Your task to perform on an android device: turn off notifications settings in the gmail app Image 0: 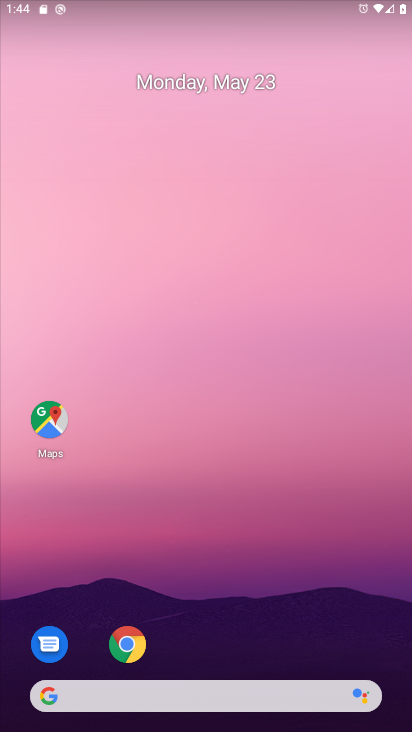
Step 0: click (360, 550)
Your task to perform on an android device: turn off notifications settings in the gmail app Image 1: 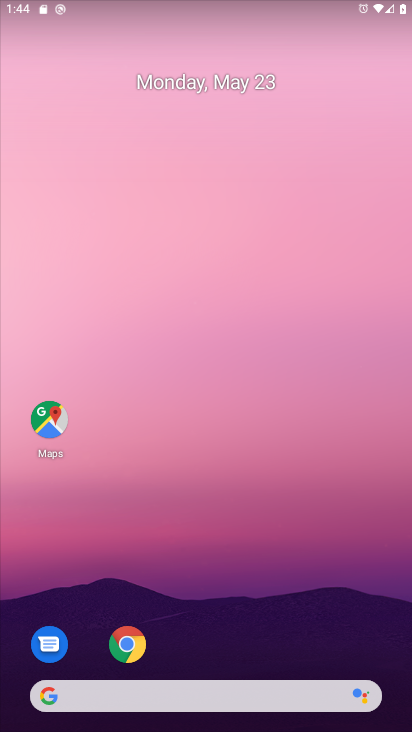
Step 1: drag from (226, 632) to (171, 236)
Your task to perform on an android device: turn off notifications settings in the gmail app Image 2: 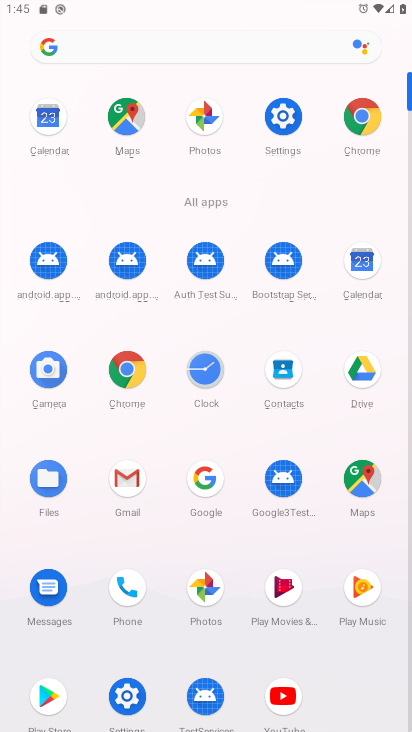
Step 2: click (131, 479)
Your task to perform on an android device: turn off notifications settings in the gmail app Image 3: 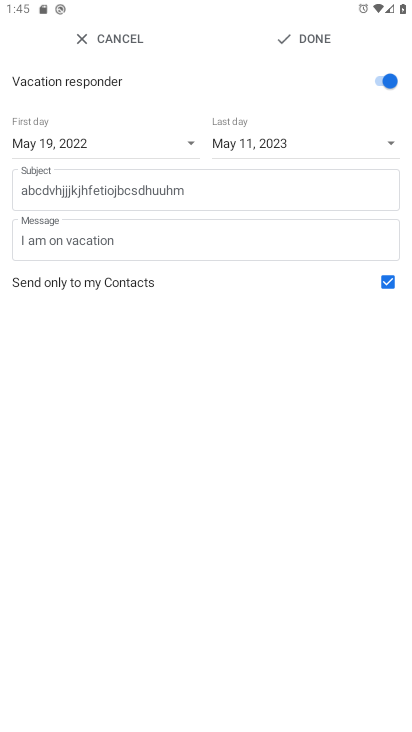
Step 3: press back button
Your task to perform on an android device: turn off notifications settings in the gmail app Image 4: 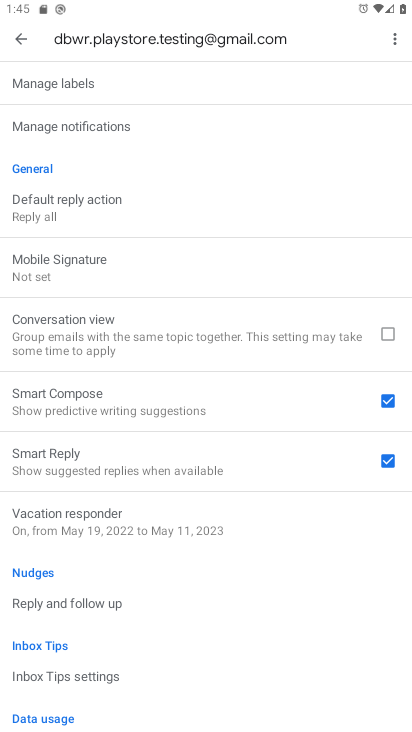
Step 4: drag from (240, 227) to (236, 523)
Your task to perform on an android device: turn off notifications settings in the gmail app Image 5: 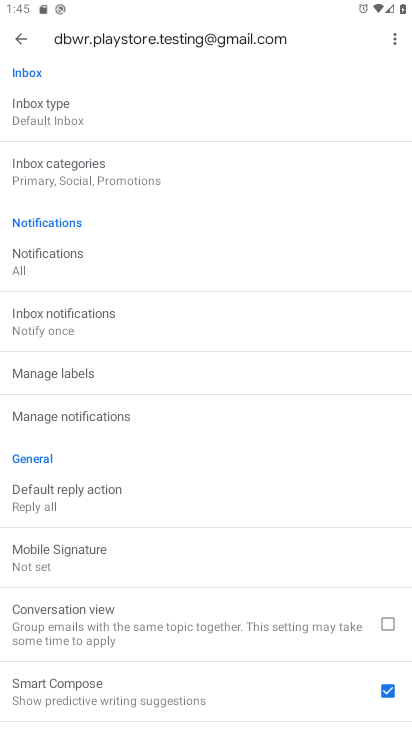
Step 5: click (70, 256)
Your task to perform on an android device: turn off notifications settings in the gmail app Image 6: 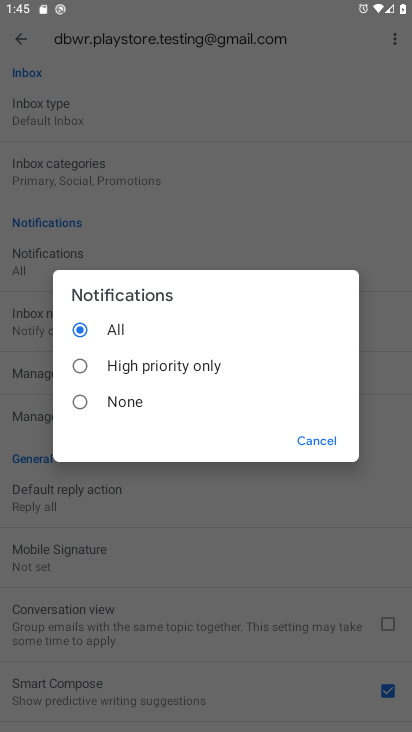
Step 6: click (80, 397)
Your task to perform on an android device: turn off notifications settings in the gmail app Image 7: 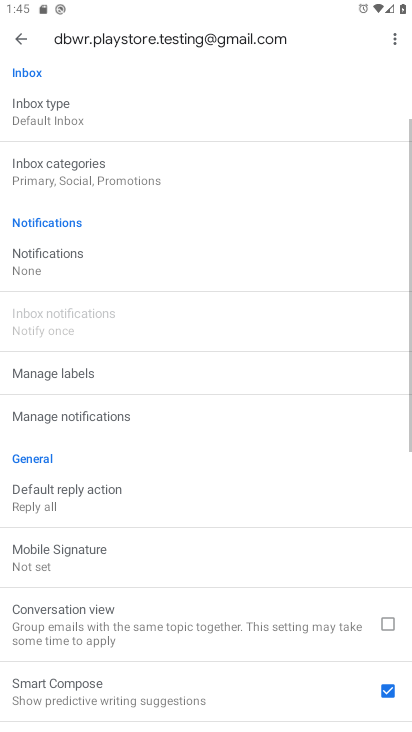
Step 7: task complete